Your task to perform on an android device: Open Google Maps Image 0: 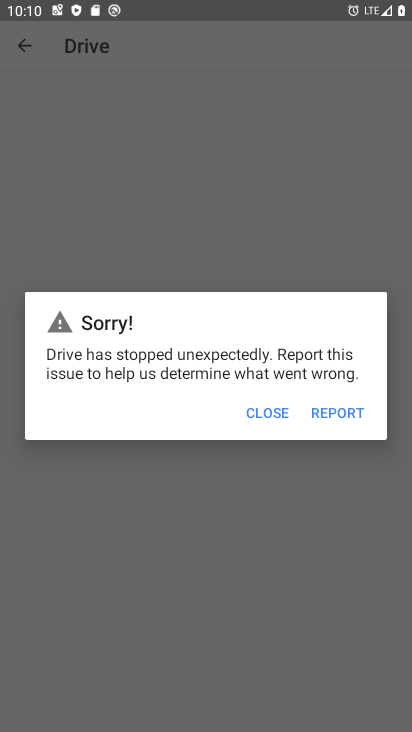
Step 0: press home button
Your task to perform on an android device: Open Google Maps Image 1: 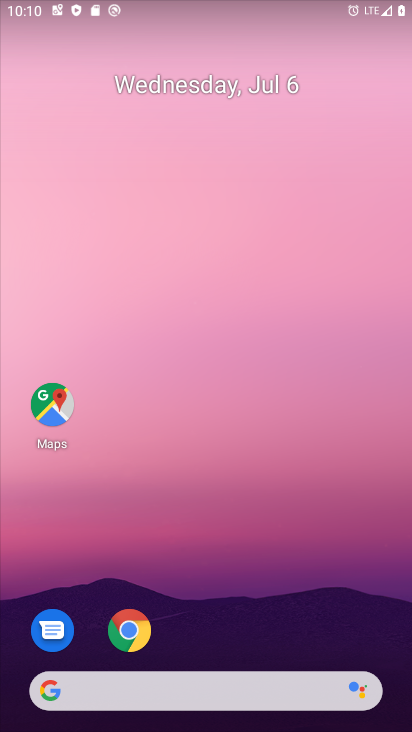
Step 1: click (52, 409)
Your task to perform on an android device: Open Google Maps Image 2: 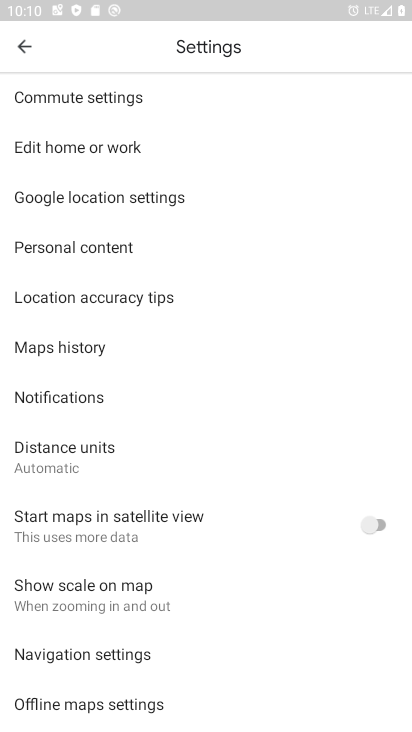
Step 2: task complete